Your task to perform on an android device: Go to Yahoo.com Image 0: 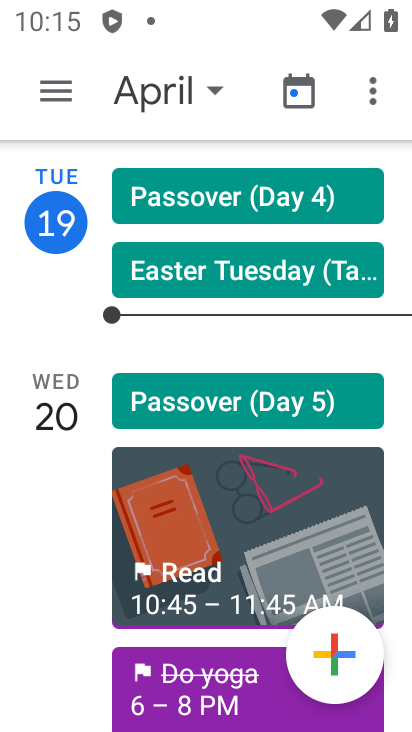
Step 0: press home button
Your task to perform on an android device: Go to Yahoo.com Image 1: 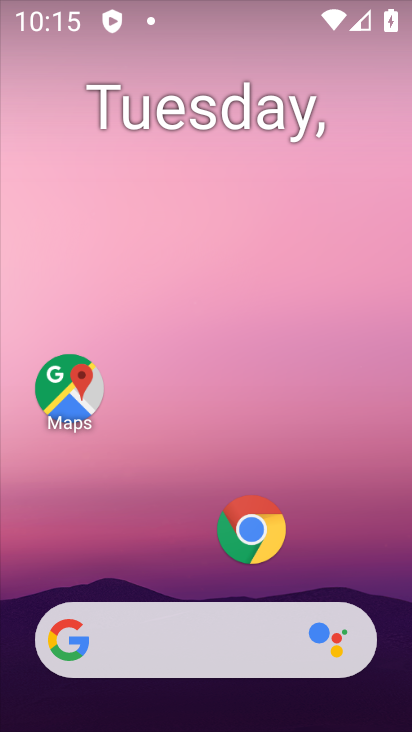
Step 1: click (253, 536)
Your task to perform on an android device: Go to Yahoo.com Image 2: 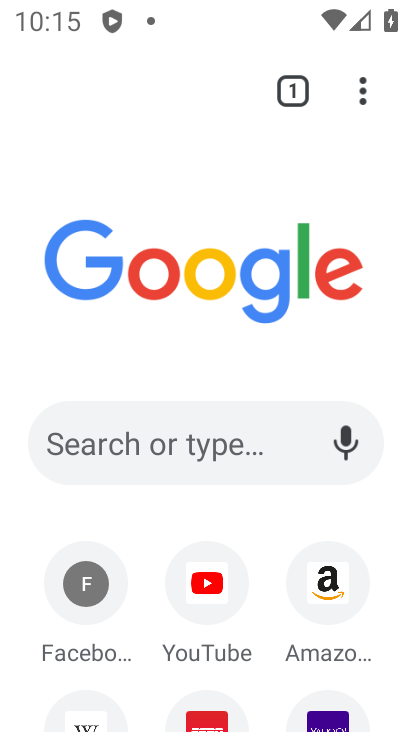
Step 2: click (151, 454)
Your task to perform on an android device: Go to Yahoo.com Image 3: 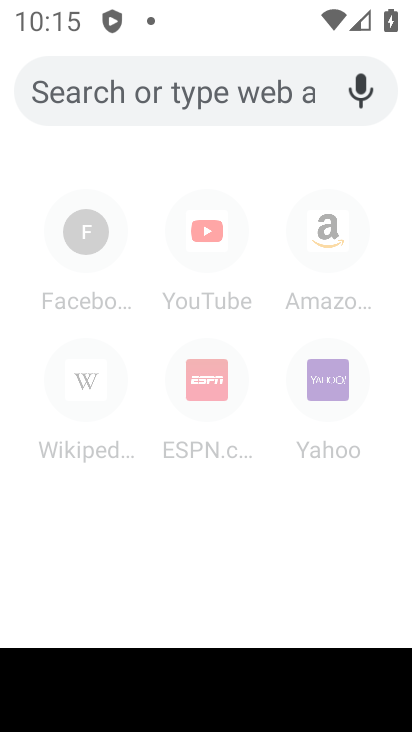
Step 3: type "yahoo.com"
Your task to perform on an android device: Go to Yahoo.com Image 4: 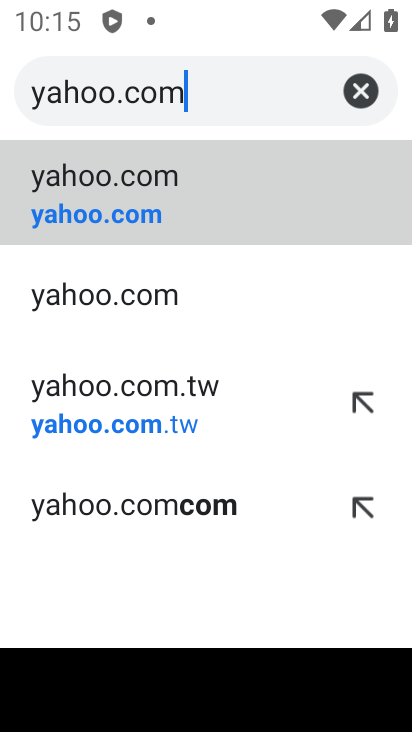
Step 4: click (138, 186)
Your task to perform on an android device: Go to Yahoo.com Image 5: 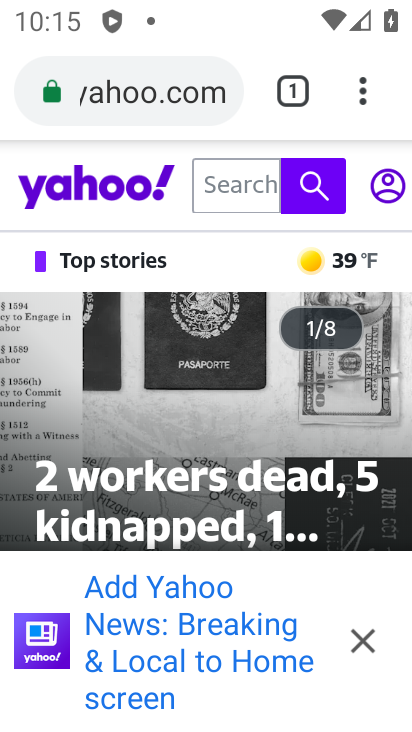
Step 5: task complete